Your task to perform on an android device: choose inbox layout in the gmail app Image 0: 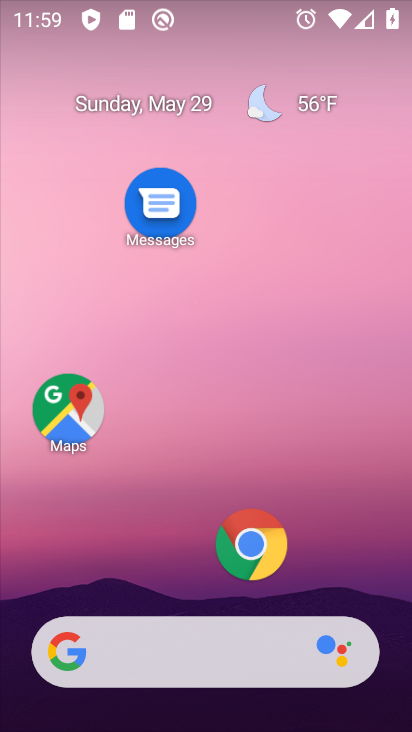
Step 0: drag from (197, 583) to (215, 33)
Your task to perform on an android device: choose inbox layout in the gmail app Image 1: 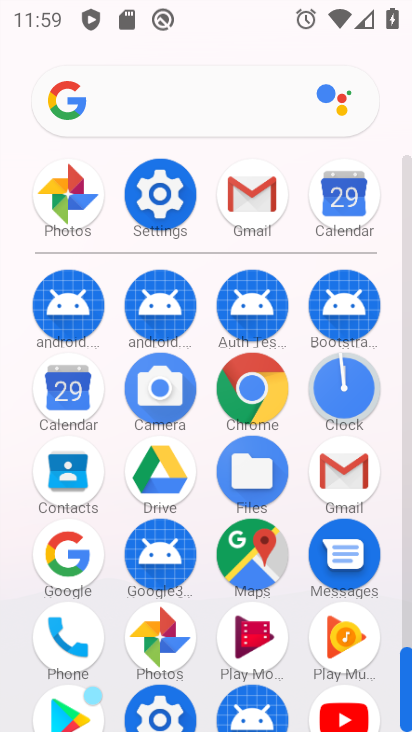
Step 1: click (258, 202)
Your task to perform on an android device: choose inbox layout in the gmail app Image 2: 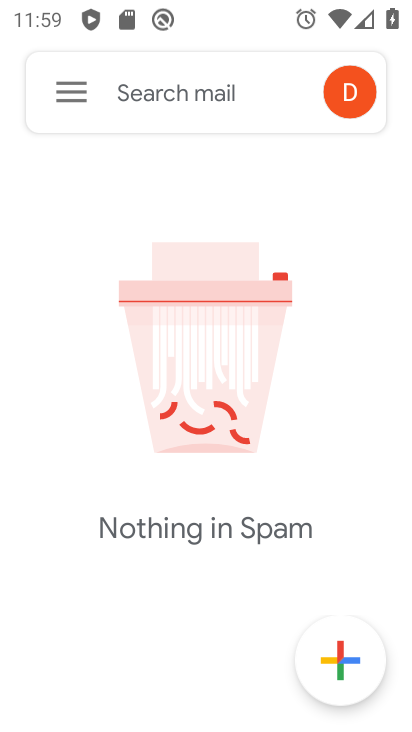
Step 2: click (70, 84)
Your task to perform on an android device: choose inbox layout in the gmail app Image 3: 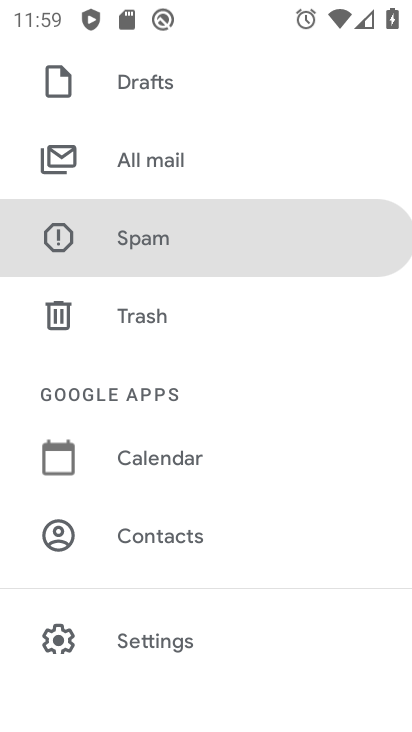
Step 3: click (208, 640)
Your task to perform on an android device: choose inbox layout in the gmail app Image 4: 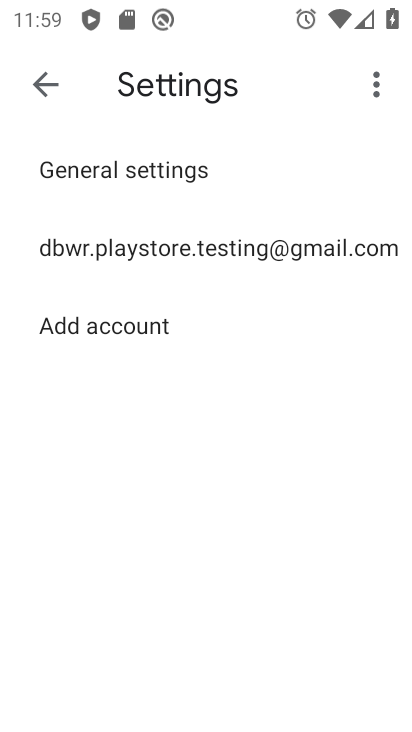
Step 4: click (238, 241)
Your task to perform on an android device: choose inbox layout in the gmail app Image 5: 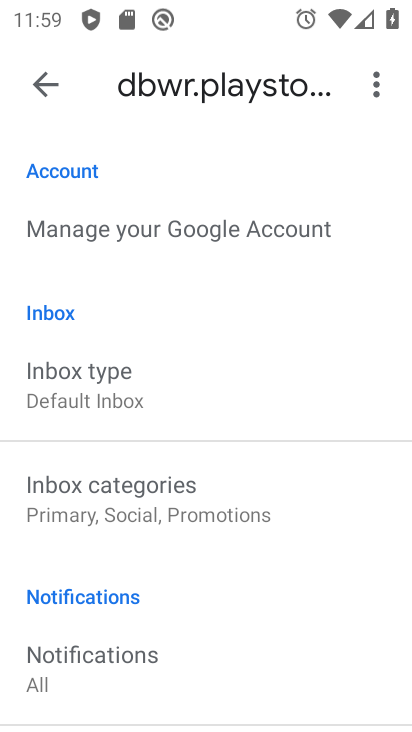
Step 5: click (158, 393)
Your task to perform on an android device: choose inbox layout in the gmail app Image 6: 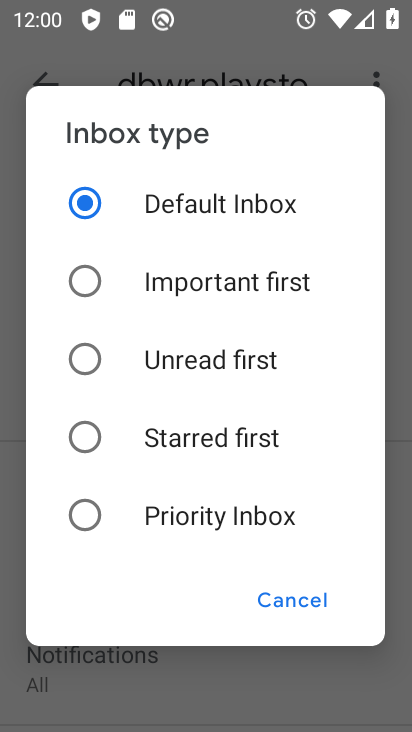
Step 6: click (82, 511)
Your task to perform on an android device: choose inbox layout in the gmail app Image 7: 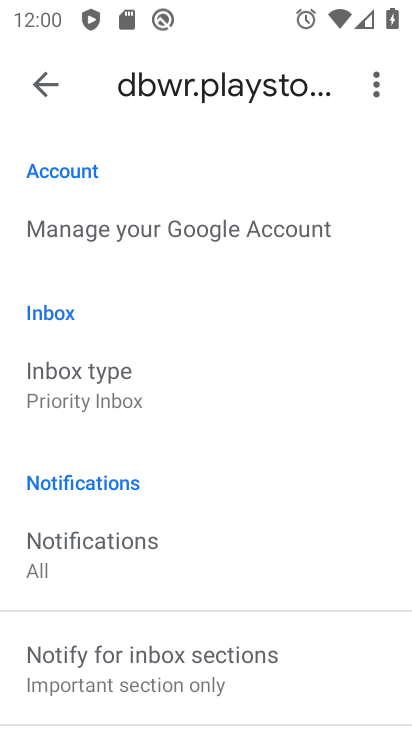
Step 7: task complete